Your task to perform on an android device: toggle location history Image 0: 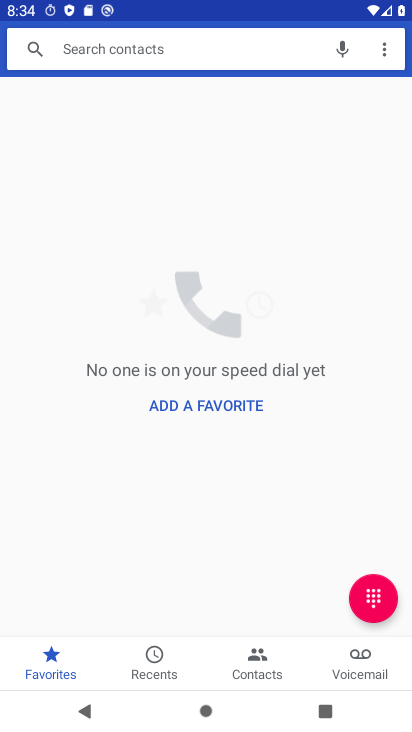
Step 0: press home button
Your task to perform on an android device: toggle location history Image 1: 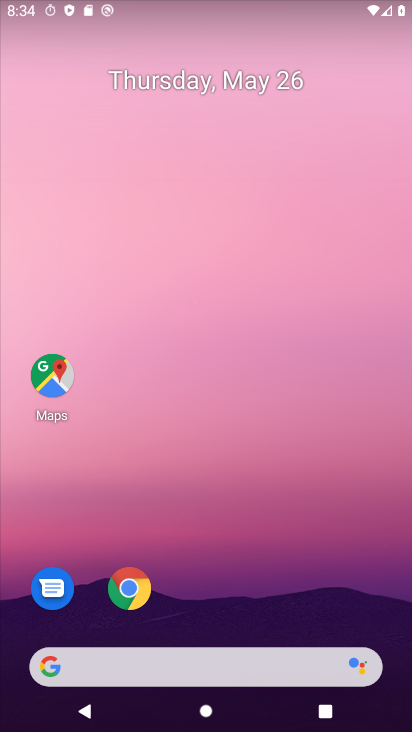
Step 1: drag from (209, 607) to (198, 18)
Your task to perform on an android device: toggle location history Image 2: 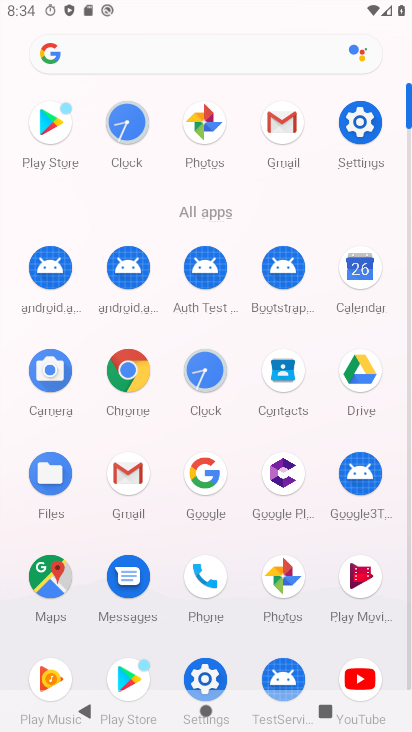
Step 2: click (365, 129)
Your task to perform on an android device: toggle location history Image 3: 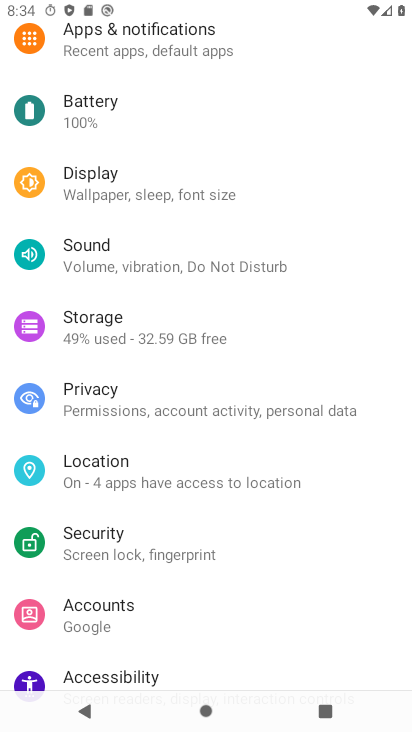
Step 3: click (109, 458)
Your task to perform on an android device: toggle location history Image 4: 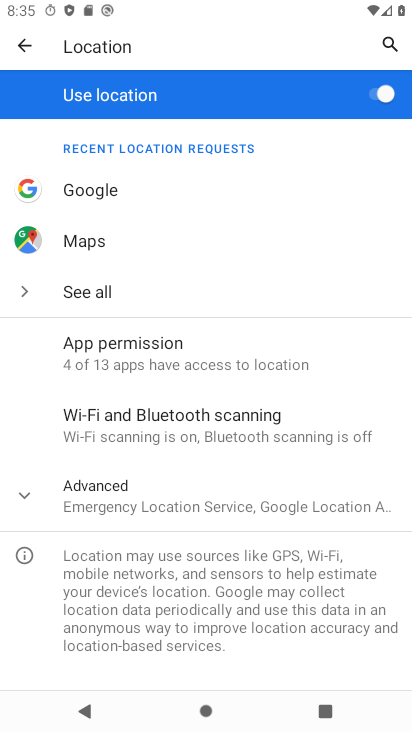
Step 4: click (108, 488)
Your task to perform on an android device: toggle location history Image 5: 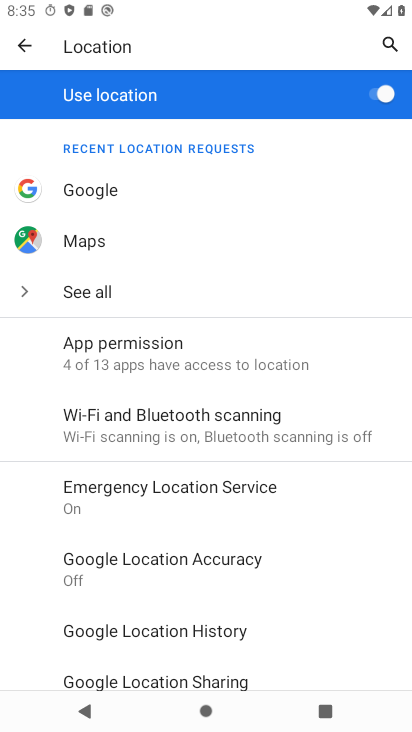
Step 5: click (183, 629)
Your task to perform on an android device: toggle location history Image 6: 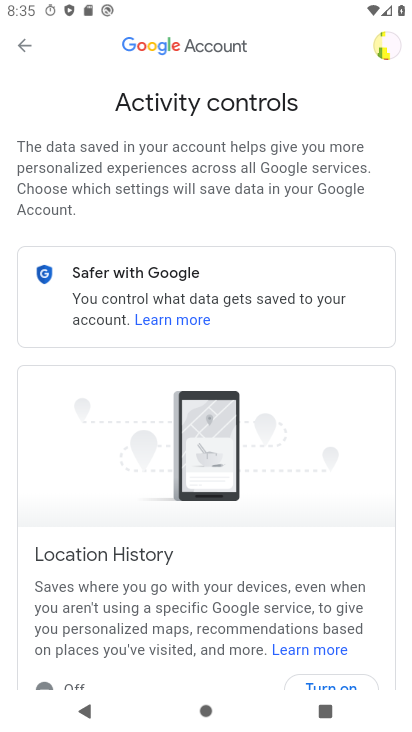
Step 6: drag from (226, 620) to (247, 163)
Your task to perform on an android device: toggle location history Image 7: 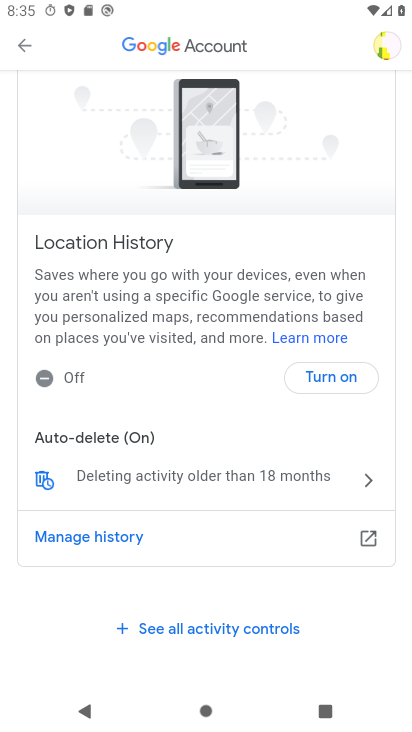
Step 7: click (335, 376)
Your task to perform on an android device: toggle location history Image 8: 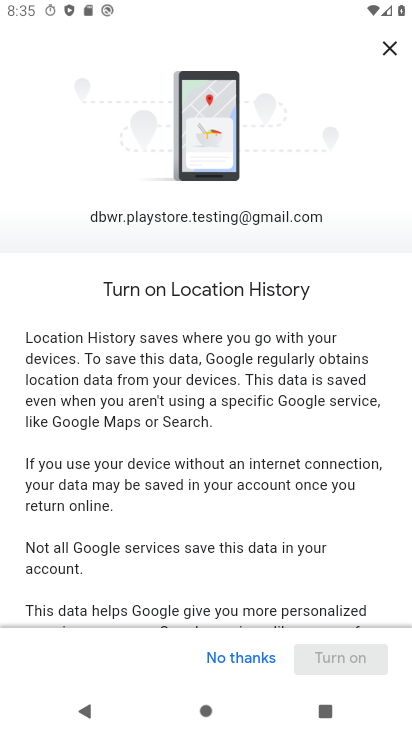
Step 8: drag from (295, 502) to (289, 19)
Your task to perform on an android device: toggle location history Image 9: 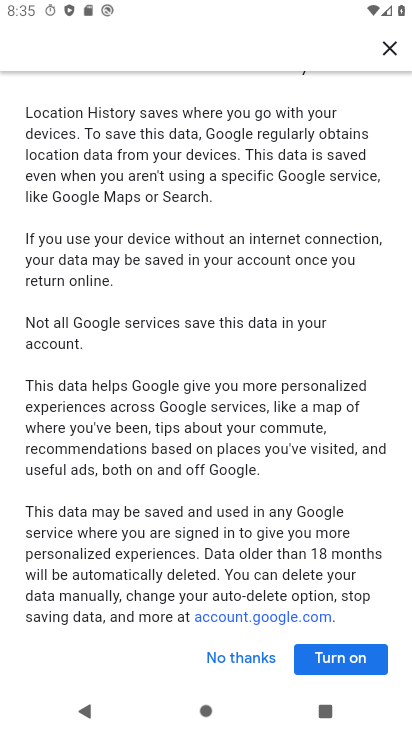
Step 9: click (338, 660)
Your task to perform on an android device: toggle location history Image 10: 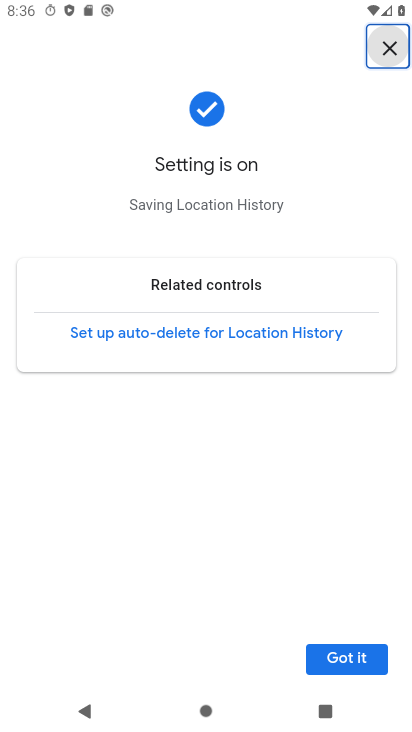
Step 10: task complete